Your task to perform on an android device: Open CNN.com Image 0: 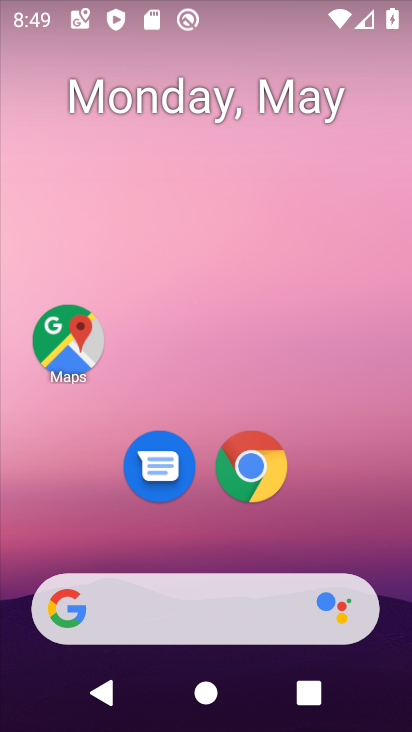
Step 0: click (135, 285)
Your task to perform on an android device: Open CNN.com Image 1: 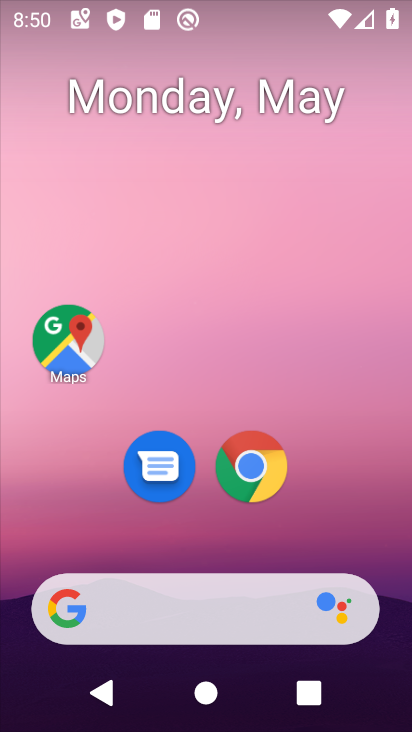
Step 1: click (256, 469)
Your task to perform on an android device: Open CNN.com Image 2: 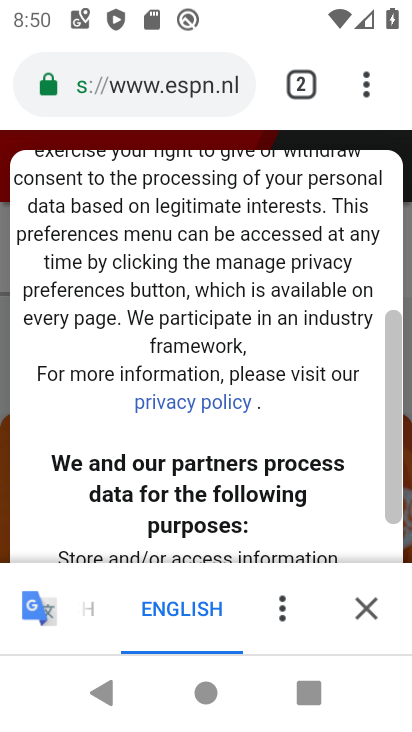
Step 2: click (164, 67)
Your task to perform on an android device: Open CNN.com Image 3: 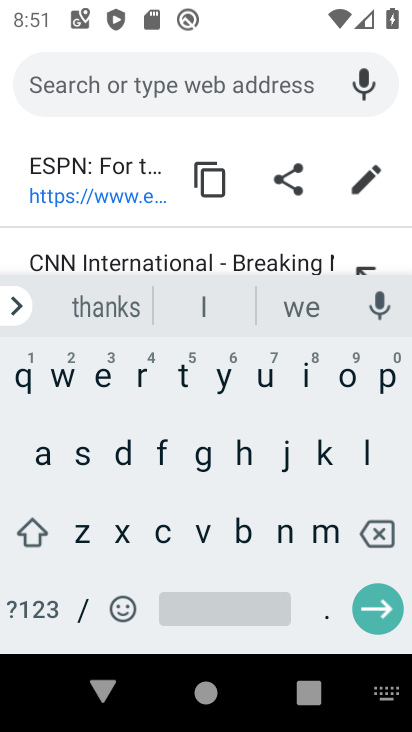
Step 3: click (158, 540)
Your task to perform on an android device: Open CNN.com Image 4: 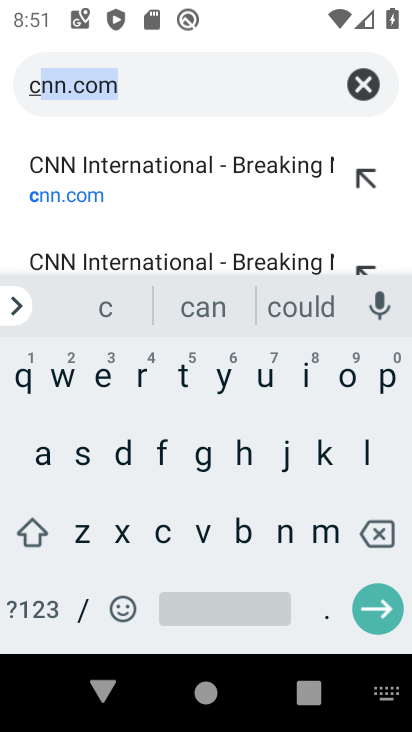
Step 4: click (166, 80)
Your task to perform on an android device: Open CNN.com Image 5: 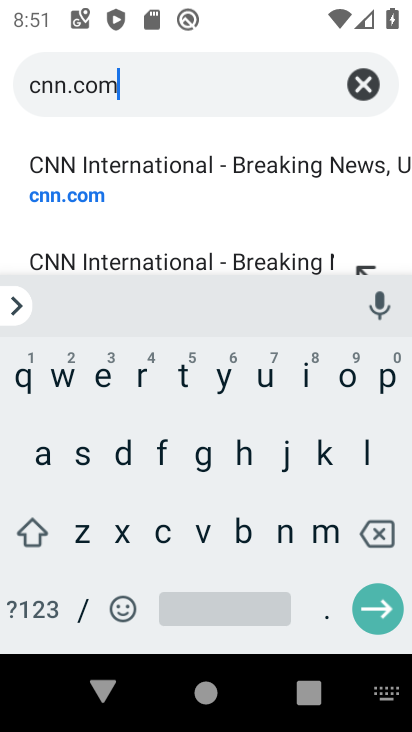
Step 5: click (384, 601)
Your task to perform on an android device: Open CNN.com Image 6: 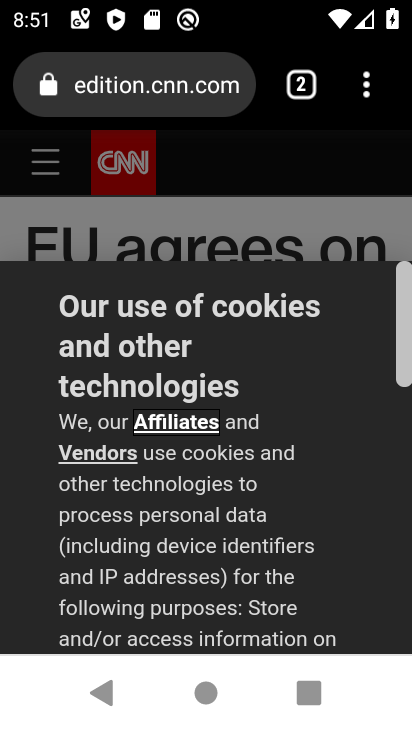
Step 6: task complete